Your task to perform on an android device: Turn on the flashlight Image 0: 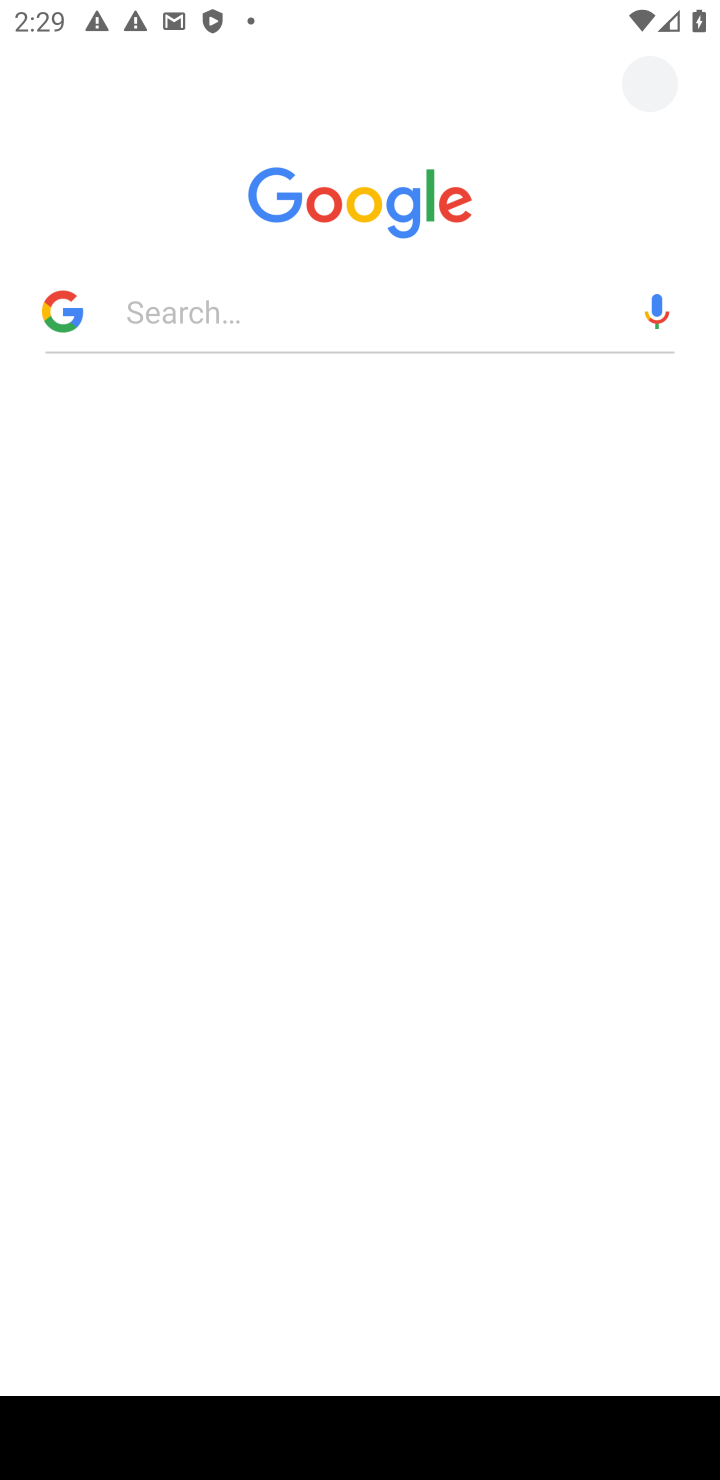
Step 0: task impossible